Your task to perform on an android device: toggle pop-ups in chrome Image 0: 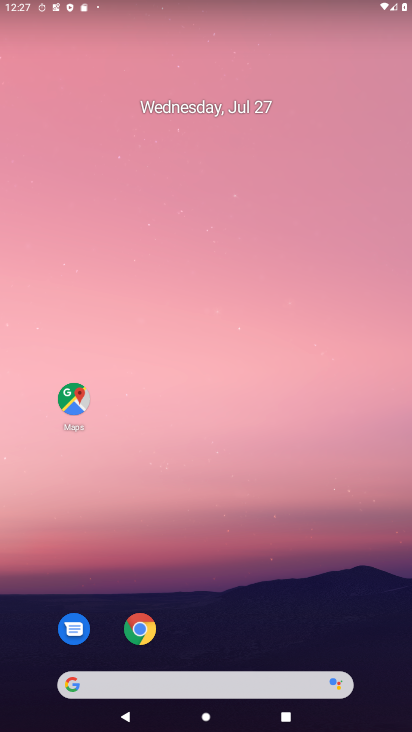
Step 0: drag from (364, 635) to (217, 23)
Your task to perform on an android device: toggle pop-ups in chrome Image 1: 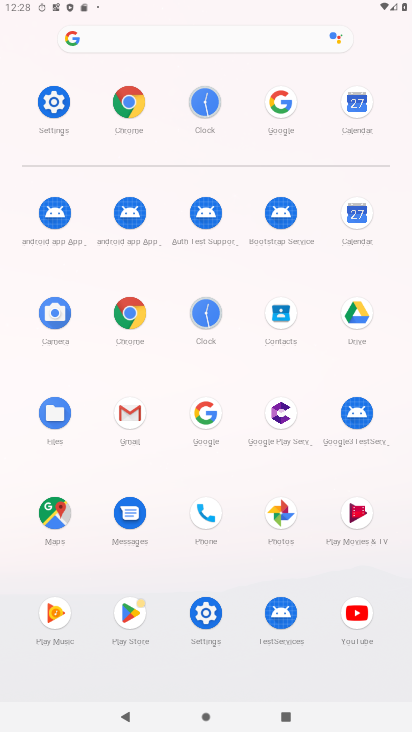
Step 1: click (136, 315)
Your task to perform on an android device: toggle pop-ups in chrome Image 2: 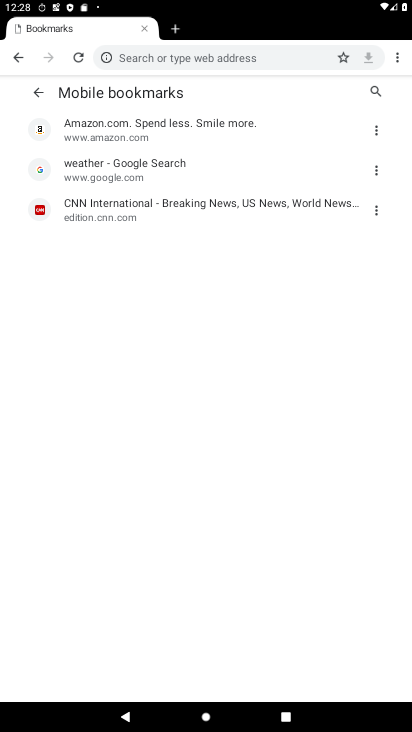
Step 2: click (397, 54)
Your task to perform on an android device: toggle pop-ups in chrome Image 3: 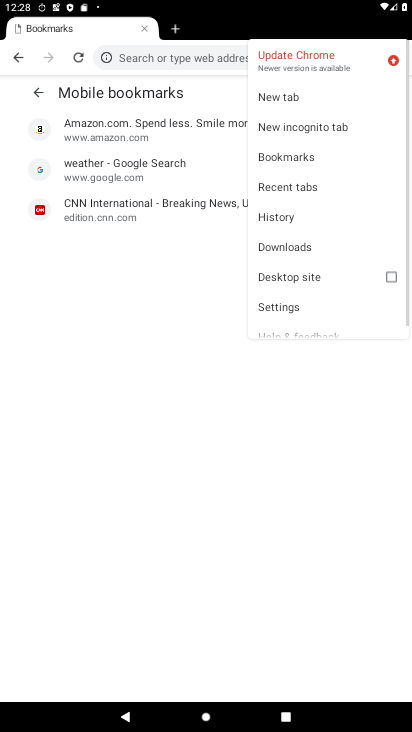
Step 3: click (304, 314)
Your task to perform on an android device: toggle pop-ups in chrome Image 4: 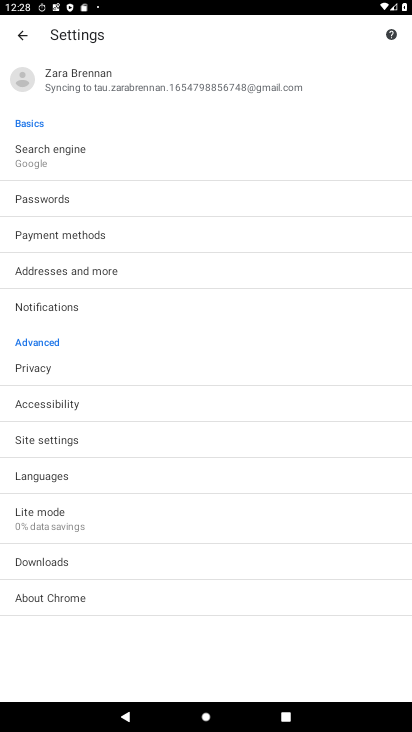
Step 4: click (118, 446)
Your task to perform on an android device: toggle pop-ups in chrome Image 5: 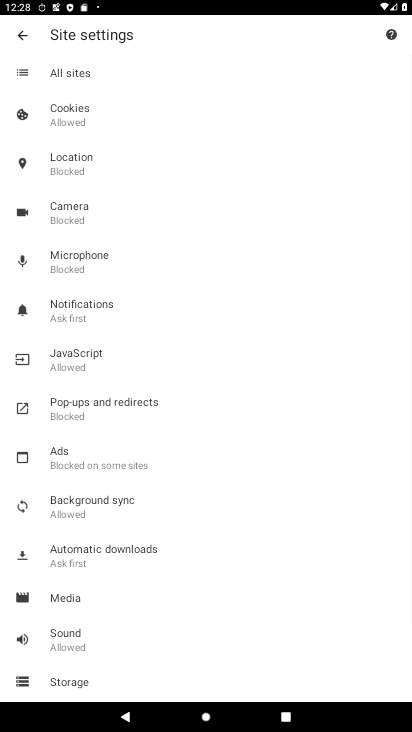
Step 5: click (108, 408)
Your task to perform on an android device: toggle pop-ups in chrome Image 6: 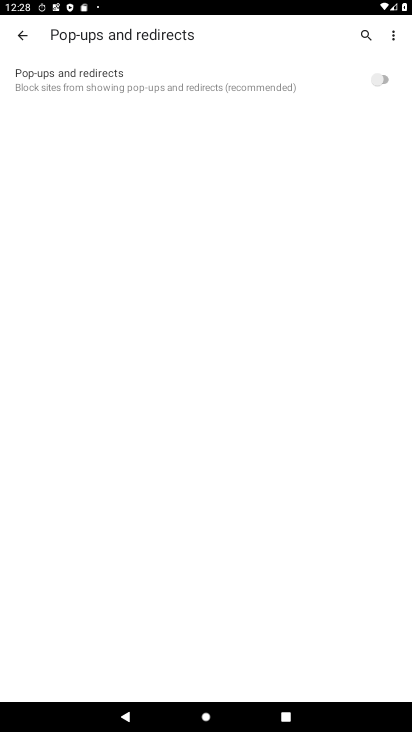
Step 6: click (380, 81)
Your task to perform on an android device: toggle pop-ups in chrome Image 7: 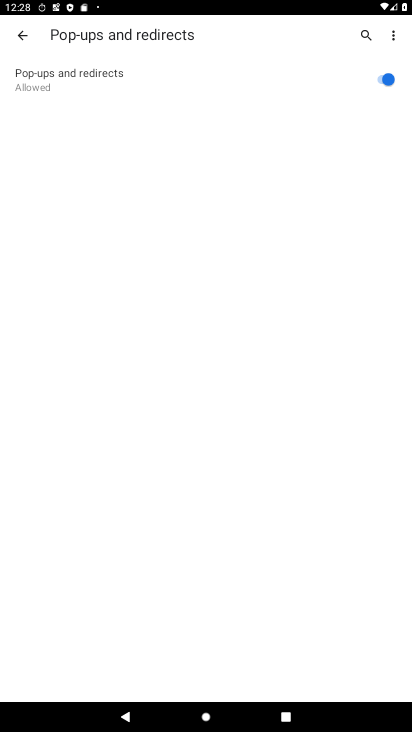
Step 7: task complete